Your task to perform on an android device: change keyboard looks Image 0: 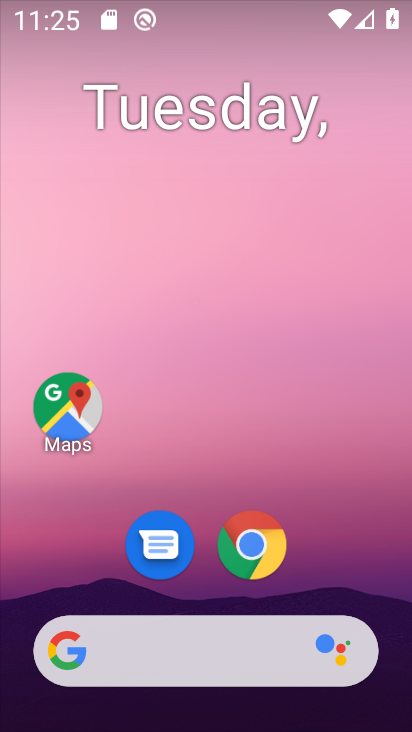
Step 0: drag from (375, 445) to (373, 85)
Your task to perform on an android device: change keyboard looks Image 1: 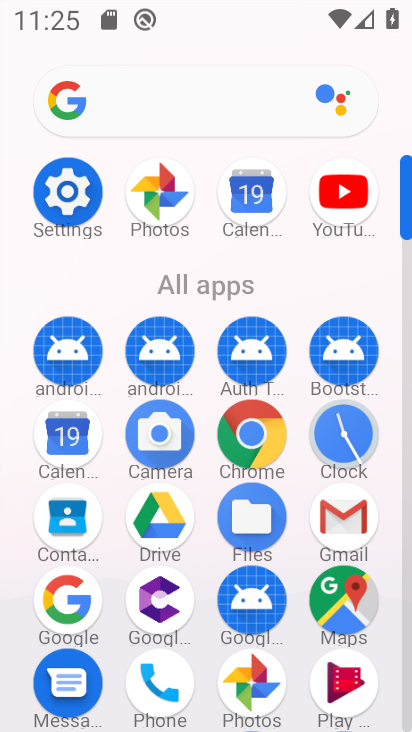
Step 1: click (70, 203)
Your task to perform on an android device: change keyboard looks Image 2: 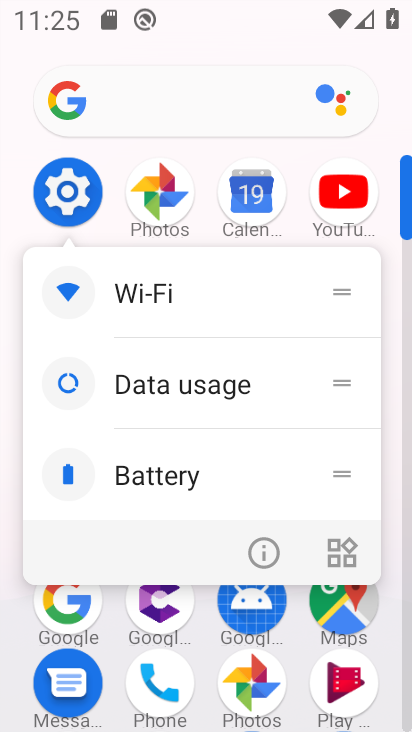
Step 2: click (70, 204)
Your task to perform on an android device: change keyboard looks Image 3: 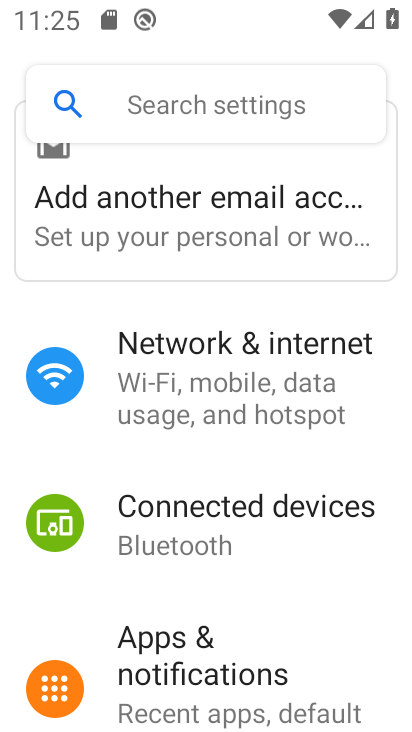
Step 3: drag from (244, 650) to (253, 312)
Your task to perform on an android device: change keyboard looks Image 4: 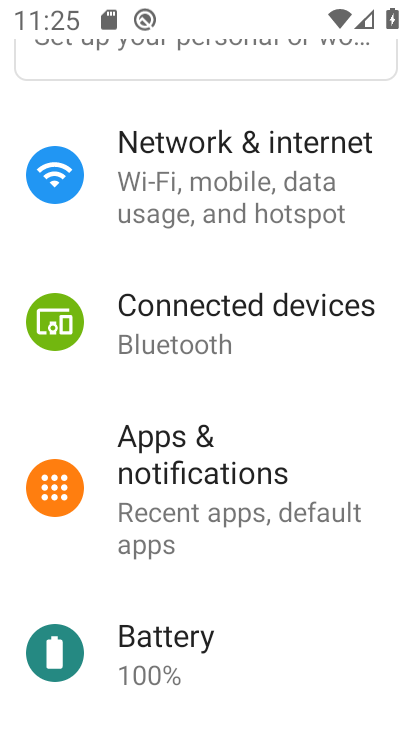
Step 4: drag from (256, 596) to (268, 123)
Your task to perform on an android device: change keyboard looks Image 5: 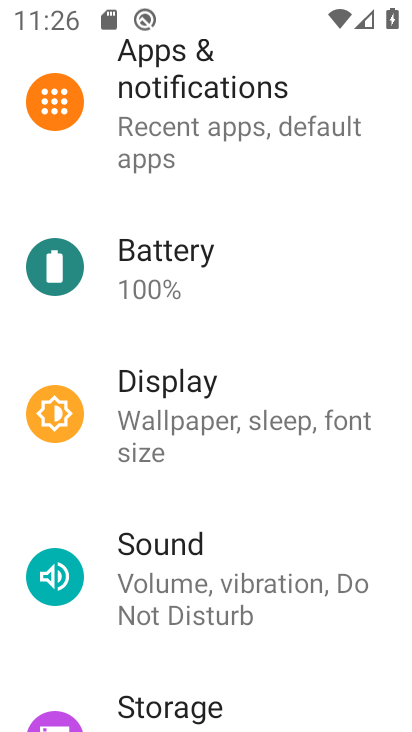
Step 5: drag from (283, 629) to (278, 69)
Your task to perform on an android device: change keyboard looks Image 6: 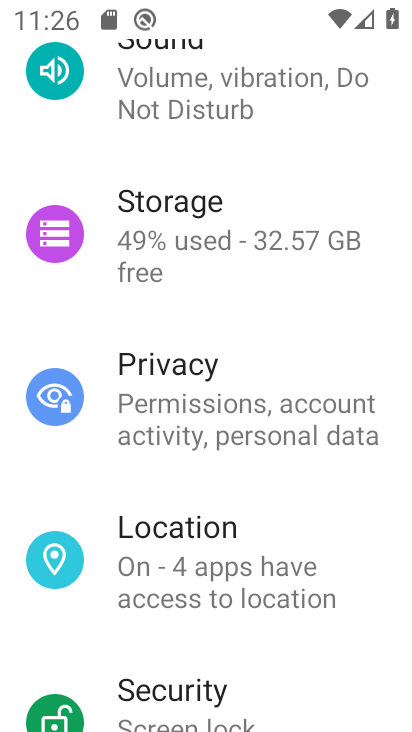
Step 6: drag from (286, 608) to (285, 125)
Your task to perform on an android device: change keyboard looks Image 7: 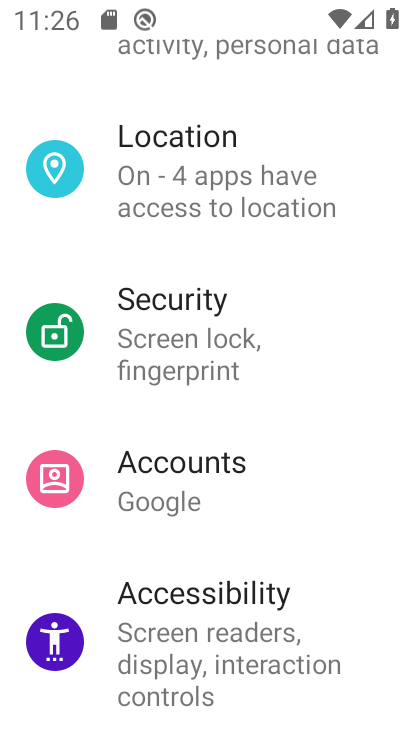
Step 7: drag from (274, 693) to (248, 138)
Your task to perform on an android device: change keyboard looks Image 8: 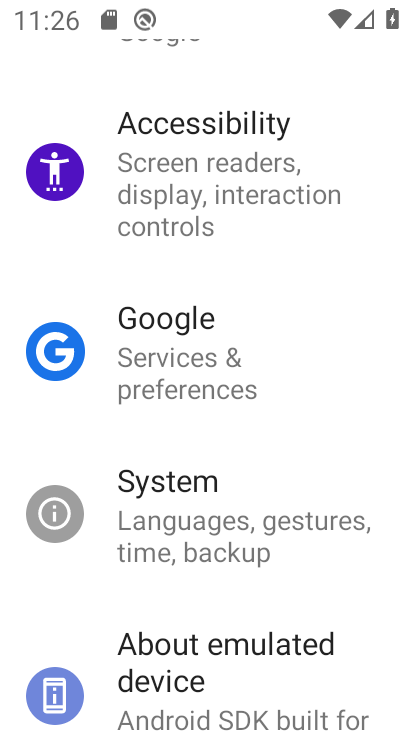
Step 8: click (226, 512)
Your task to perform on an android device: change keyboard looks Image 9: 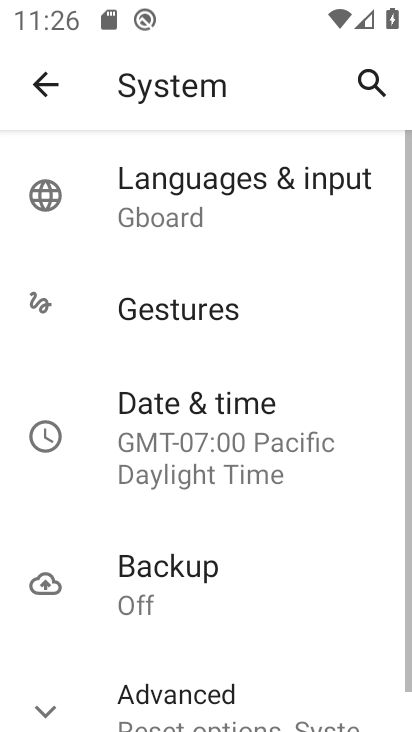
Step 9: click (269, 197)
Your task to perform on an android device: change keyboard looks Image 10: 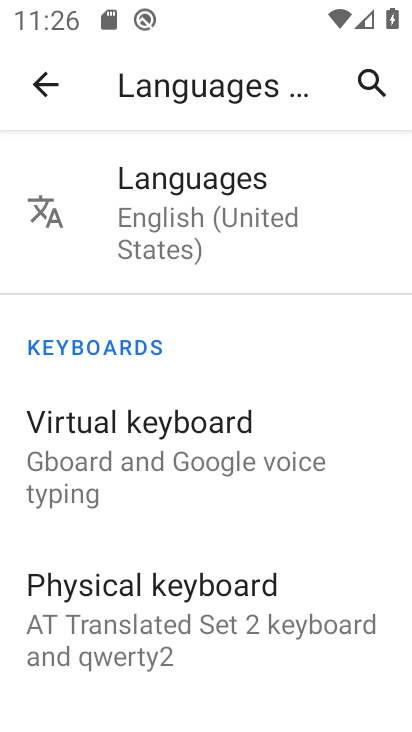
Step 10: click (148, 446)
Your task to perform on an android device: change keyboard looks Image 11: 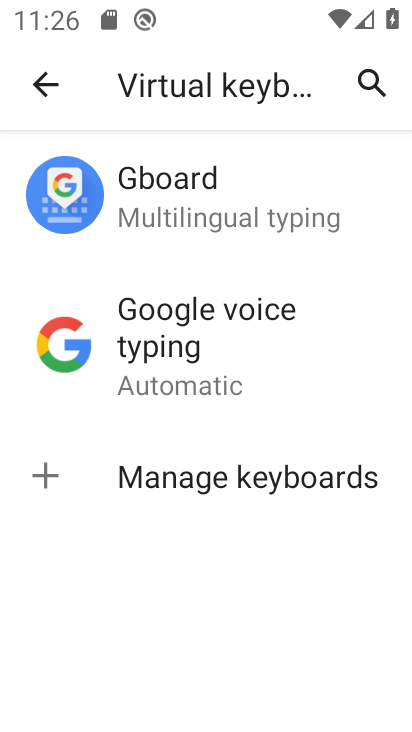
Step 11: click (210, 198)
Your task to perform on an android device: change keyboard looks Image 12: 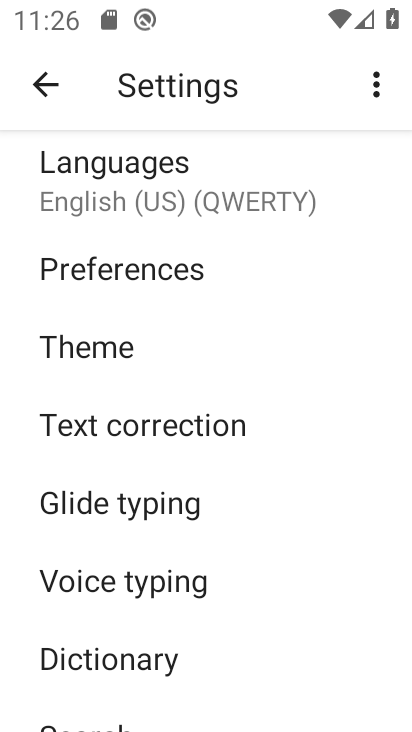
Step 12: click (135, 345)
Your task to perform on an android device: change keyboard looks Image 13: 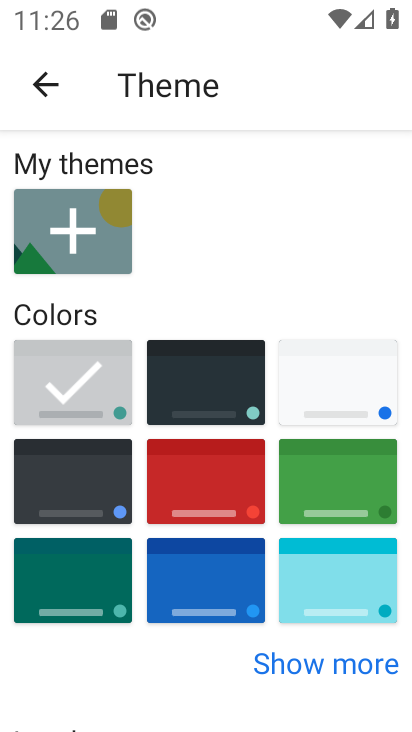
Step 13: click (222, 370)
Your task to perform on an android device: change keyboard looks Image 14: 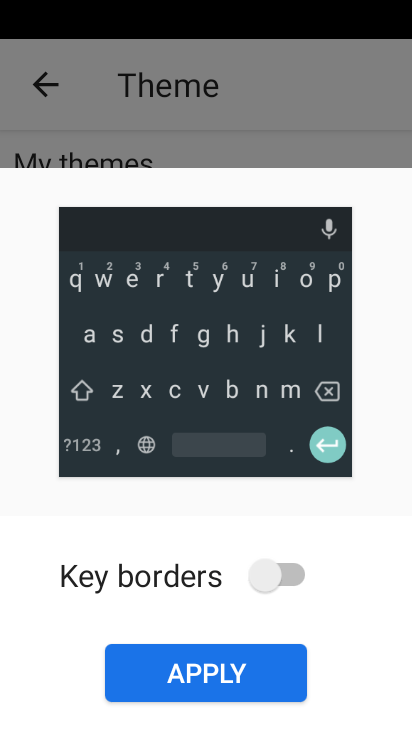
Step 14: click (274, 568)
Your task to perform on an android device: change keyboard looks Image 15: 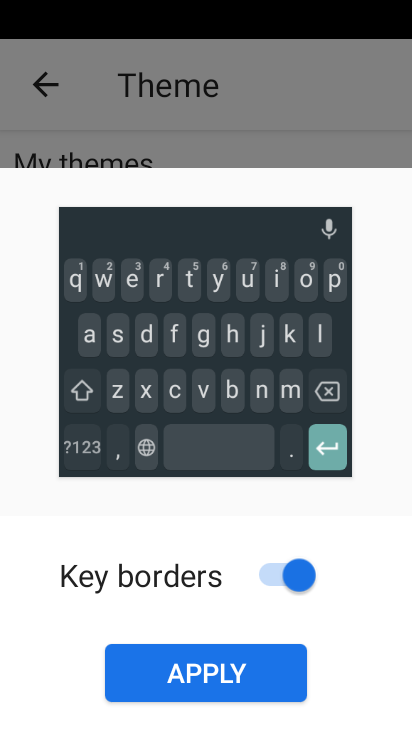
Step 15: click (261, 659)
Your task to perform on an android device: change keyboard looks Image 16: 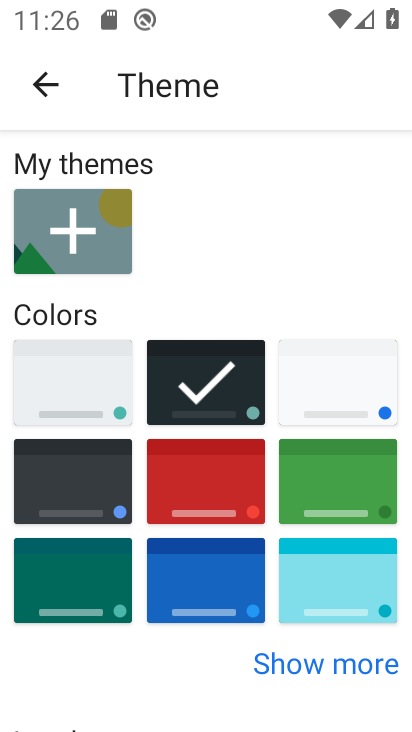
Step 16: task complete